Your task to perform on an android device: open chrome privacy settings Image 0: 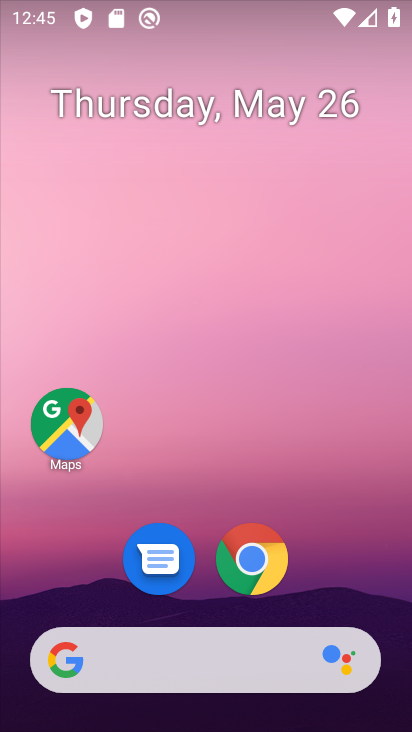
Step 0: press home button
Your task to perform on an android device: open chrome privacy settings Image 1: 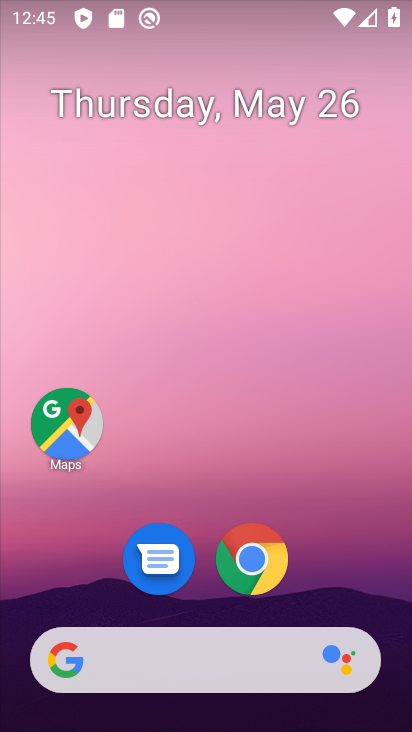
Step 1: click (270, 564)
Your task to perform on an android device: open chrome privacy settings Image 2: 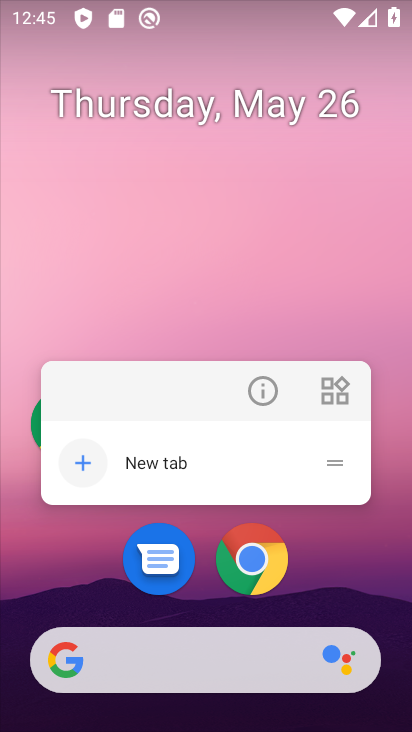
Step 2: click (257, 577)
Your task to perform on an android device: open chrome privacy settings Image 3: 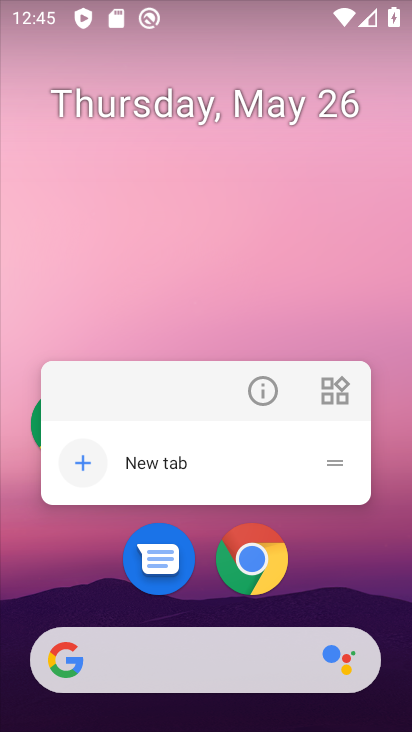
Step 3: click (259, 568)
Your task to perform on an android device: open chrome privacy settings Image 4: 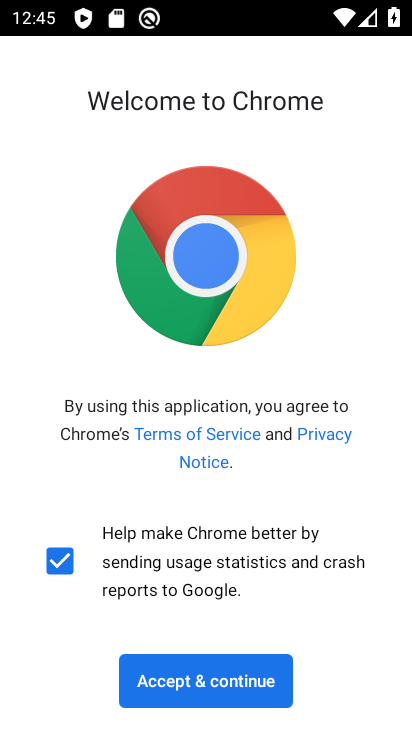
Step 4: click (244, 680)
Your task to perform on an android device: open chrome privacy settings Image 5: 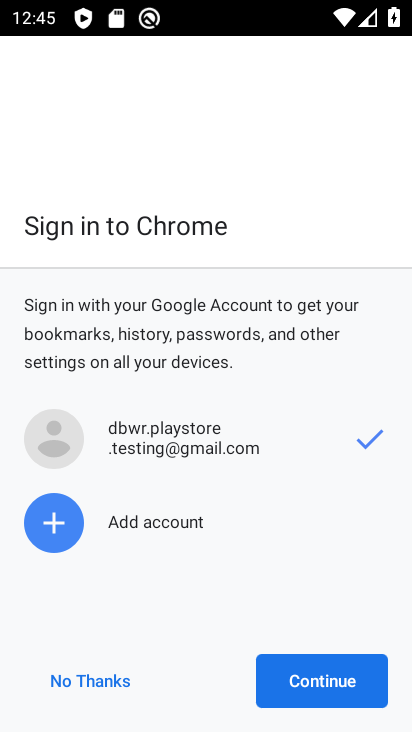
Step 5: click (345, 689)
Your task to perform on an android device: open chrome privacy settings Image 6: 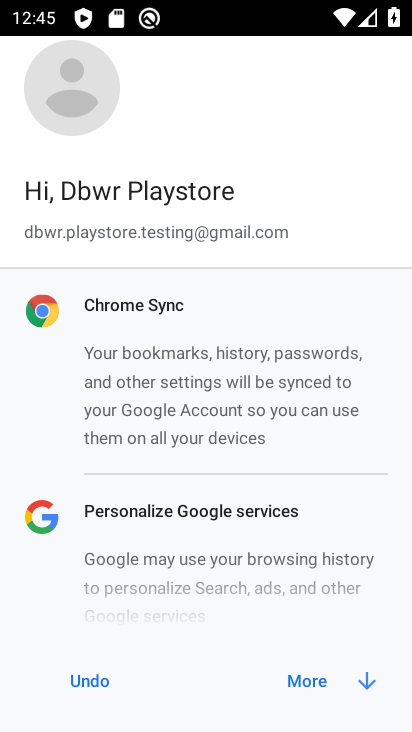
Step 6: click (312, 674)
Your task to perform on an android device: open chrome privacy settings Image 7: 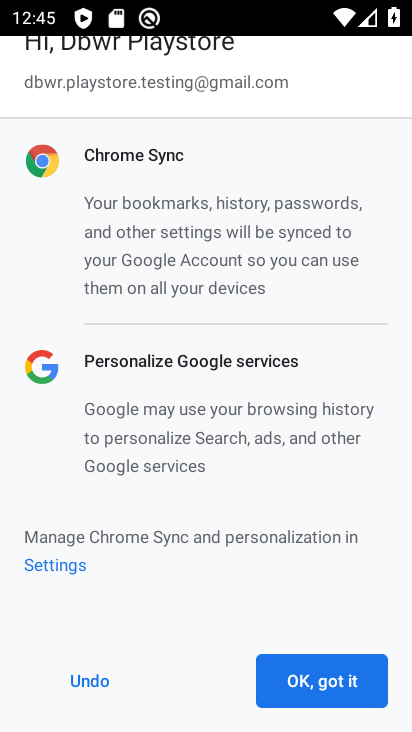
Step 7: click (311, 676)
Your task to perform on an android device: open chrome privacy settings Image 8: 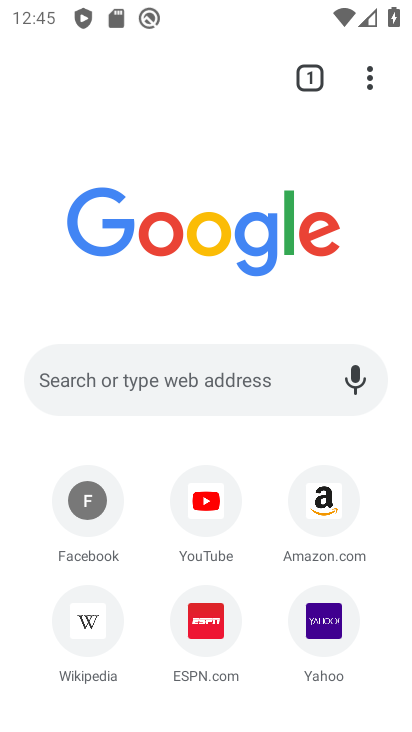
Step 8: drag from (364, 81) to (125, 605)
Your task to perform on an android device: open chrome privacy settings Image 9: 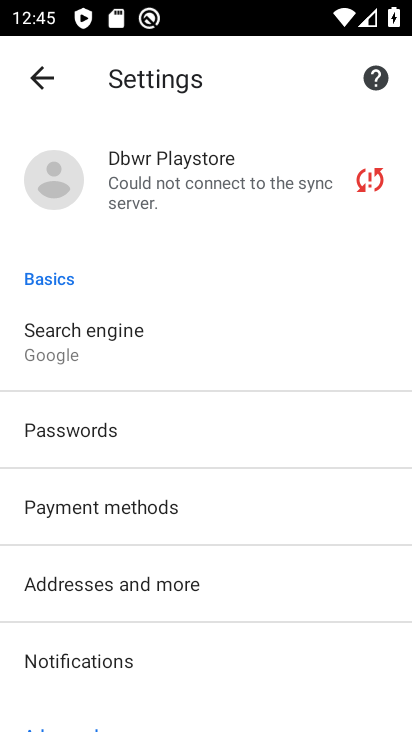
Step 9: drag from (186, 681) to (314, 246)
Your task to perform on an android device: open chrome privacy settings Image 10: 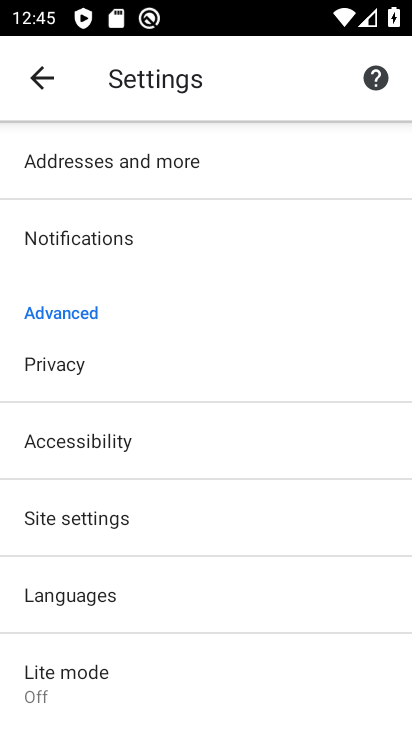
Step 10: click (59, 360)
Your task to perform on an android device: open chrome privacy settings Image 11: 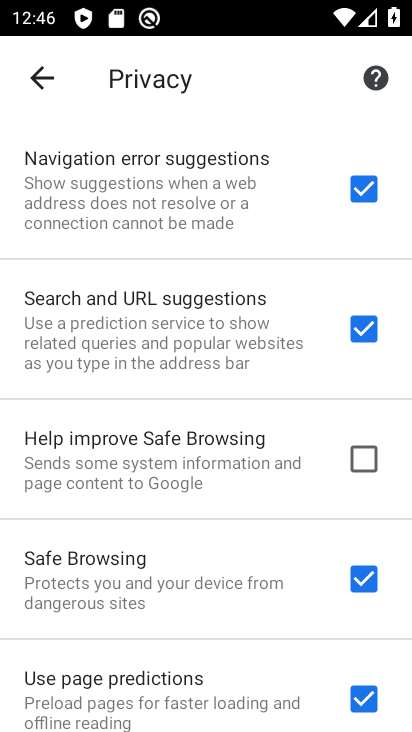
Step 11: task complete